Your task to perform on an android device: toggle priority inbox in the gmail app Image 0: 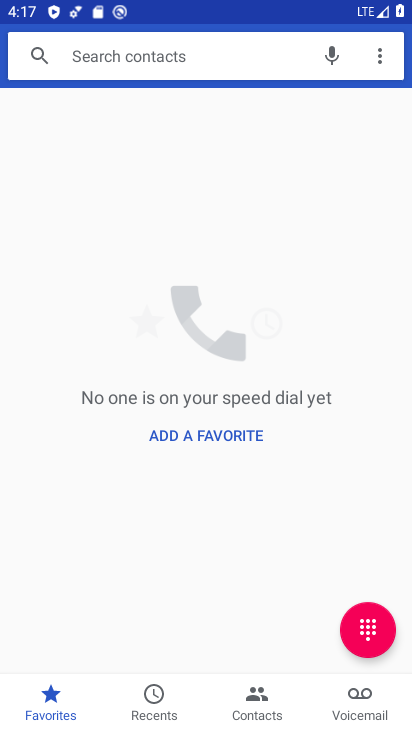
Step 0: press home button
Your task to perform on an android device: toggle priority inbox in the gmail app Image 1: 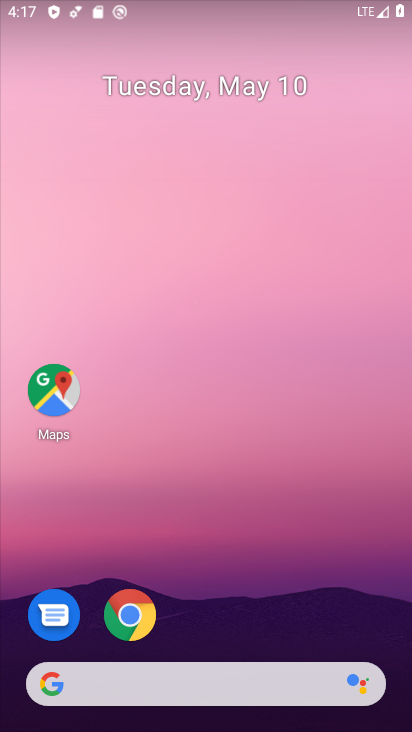
Step 1: drag from (276, 621) to (285, 0)
Your task to perform on an android device: toggle priority inbox in the gmail app Image 2: 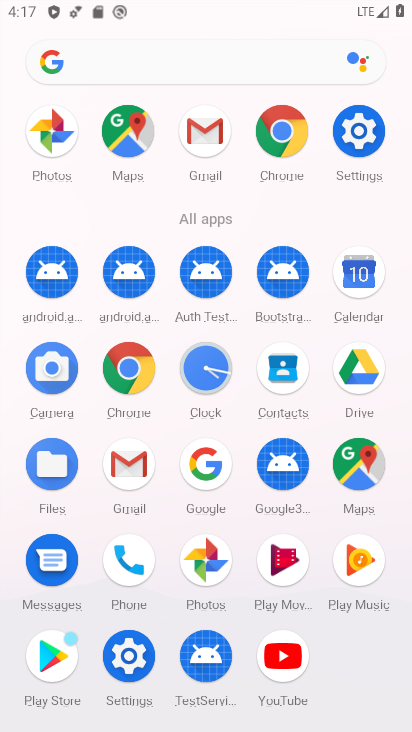
Step 2: click (125, 480)
Your task to perform on an android device: toggle priority inbox in the gmail app Image 3: 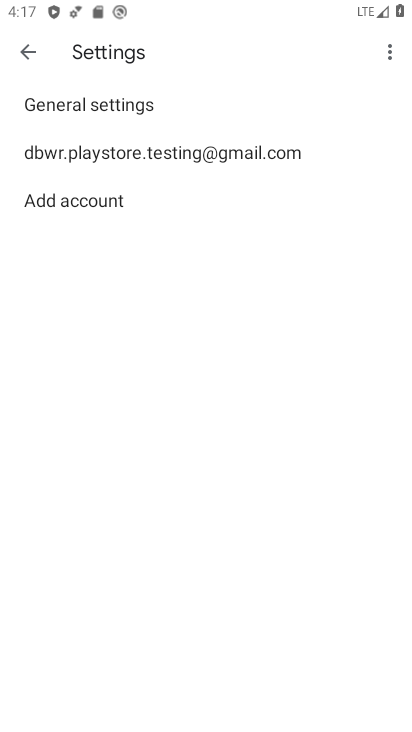
Step 3: click (154, 151)
Your task to perform on an android device: toggle priority inbox in the gmail app Image 4: 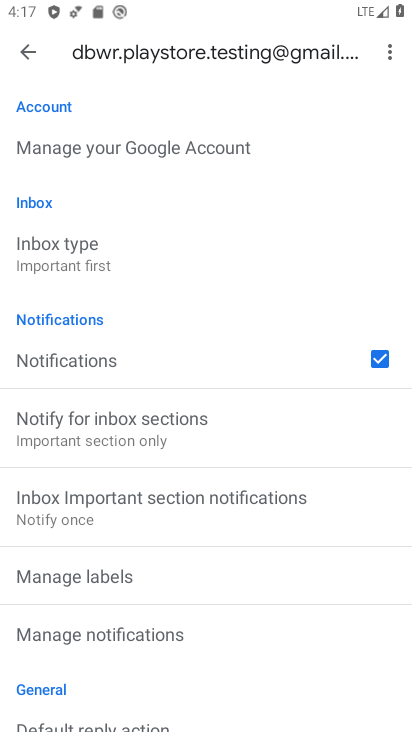
Step 4: click (164, 234)
Your task to perform on an android device: toggle priority inbox in the gmail app Image 5: 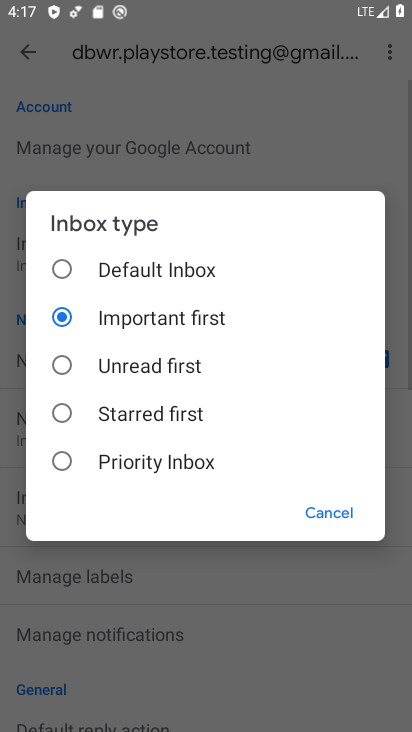
Step 5: click (86, 464)
Your task to perform on an android device: toggle priority inbox in the gmail app Image 6: 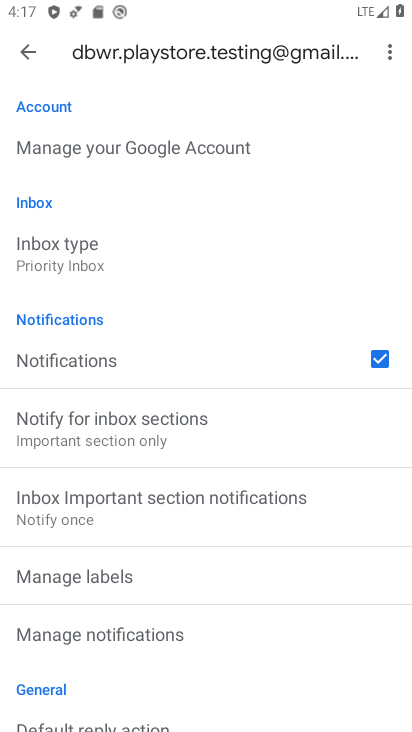
Step 6: task complete